Your task to perform on an android device: Search for seafood restaurants on Google Maps Image 0: 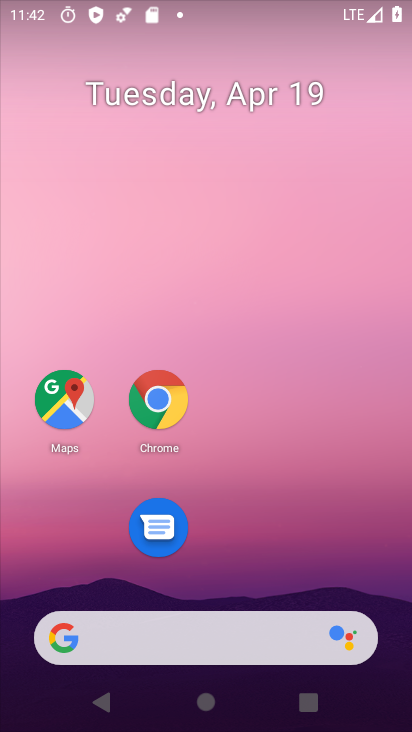
Step 0: drag from (212, 671) to (181, 200)
Your task to perform on an android device: Search for seafood restaurants on Google Maps Image 1: 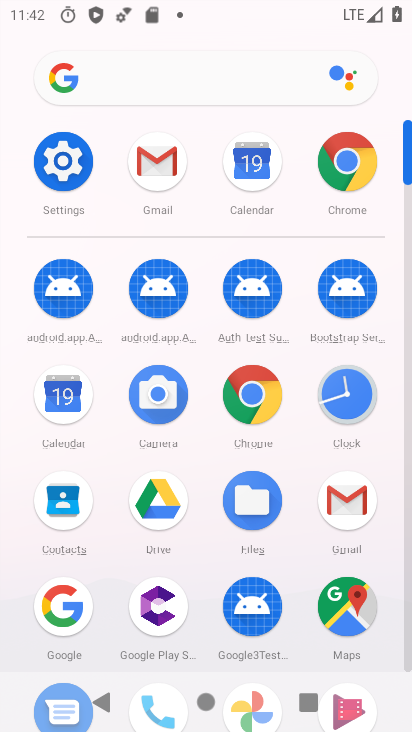
Step 1: click (338, 603)
Your task to perform on an android device: Search for seafood restaurants on Google Maps Image 2: 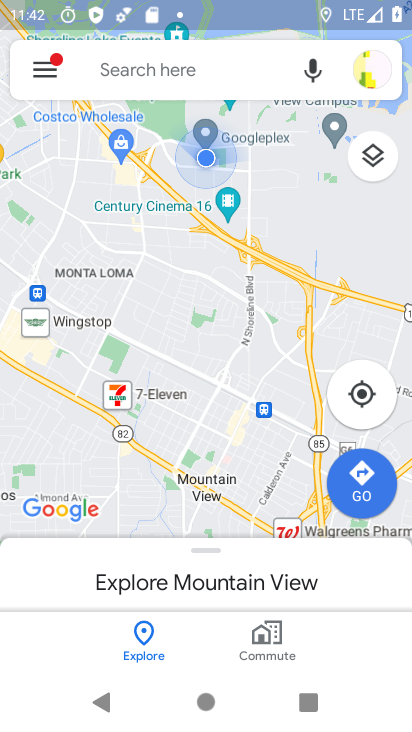
Step 2: click (148, 66)
Your task to perform on an android device: Search for seafood restaurants on Google Maps Image 3: 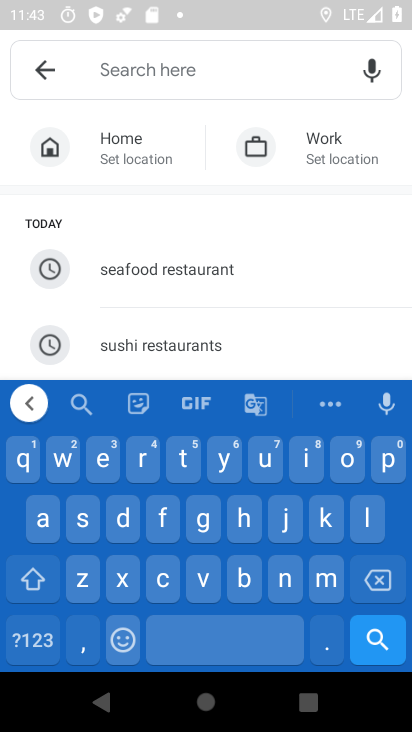
Step 3: click (103, 466)
Your task to perform on an android device: Search for seafood restaurants on Google Maps Image 4: 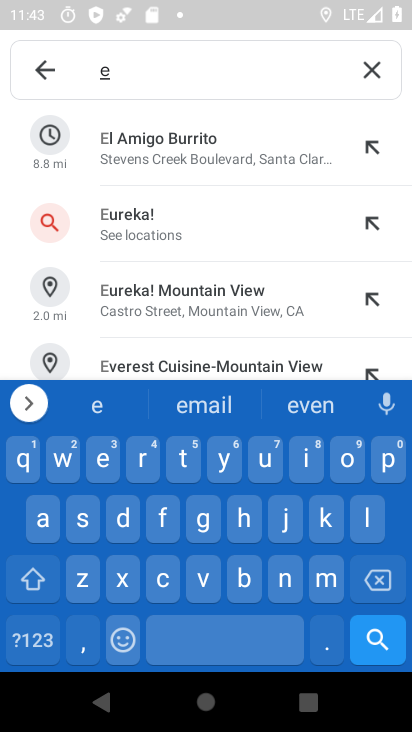
Step 4: click (81, 516)
Your task to perform on an android device: Search for seafood restaurants on Google Maps Image 5: 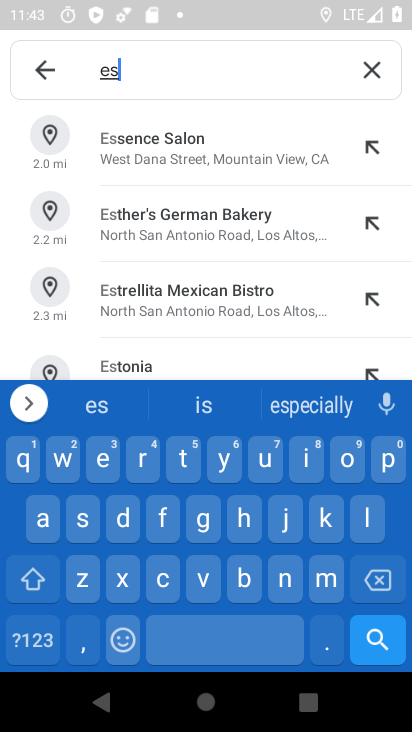
Step 5: click (372, 573)
Your task to perform on an android device: Search for seafood restaurants on Google Maps Image 6: 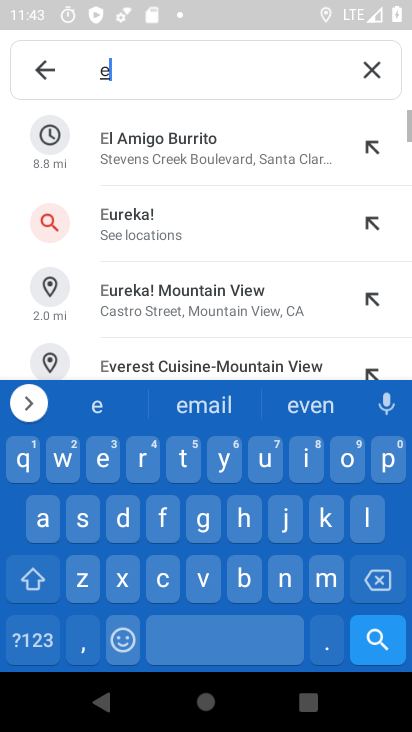
Step 6: drag from (109, 573) to (81, 521)
Your task to perform on an android device: Search for seafood restaurants on Google Maps Image 7: 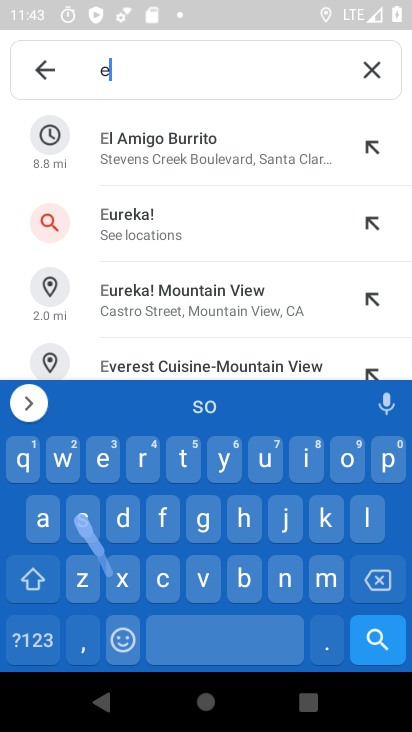
Step 7: click (81, 521)
Your task to perform on an android device: Search for seafood restaurants on Google Maps Image 8: 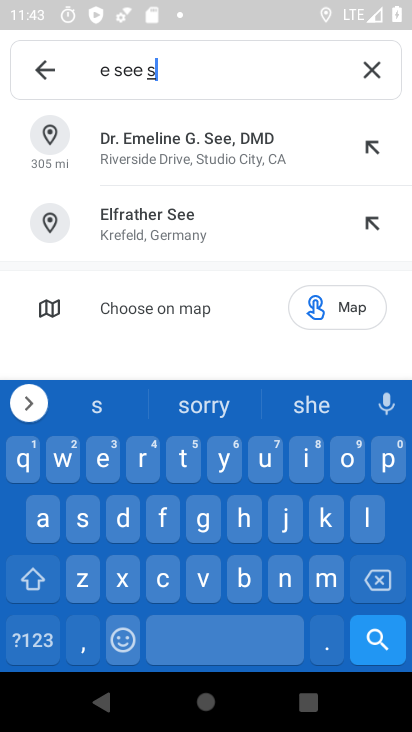
Step 8: click (370, 61)
Your task to perform on an android device: Search for seafood restaurants on Google Maps Image 9: 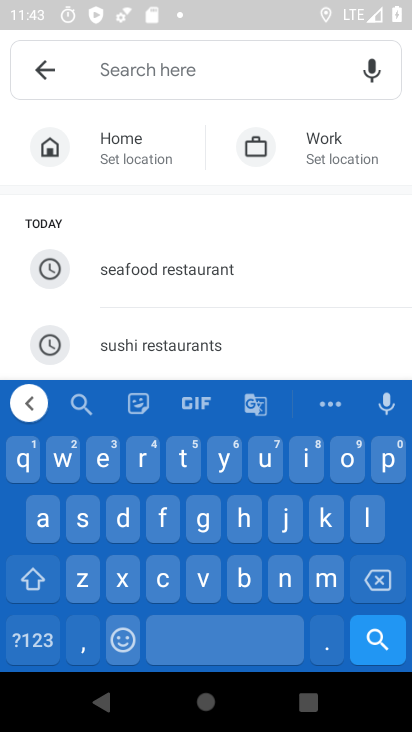
Step 9: click (77, 518)
Your task to perform on an android device: Search for seafood restaurants on Google Maps Image 10: 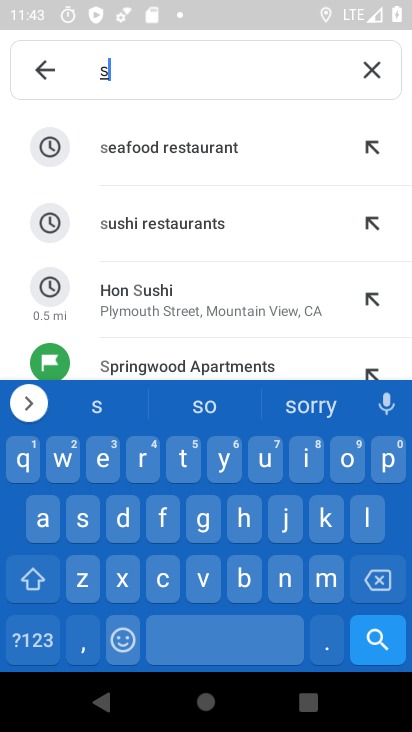
Step 10: click (213, 158)
Your task to perform on an android device: Search for seafood restaurants on Google Maps Image 11: 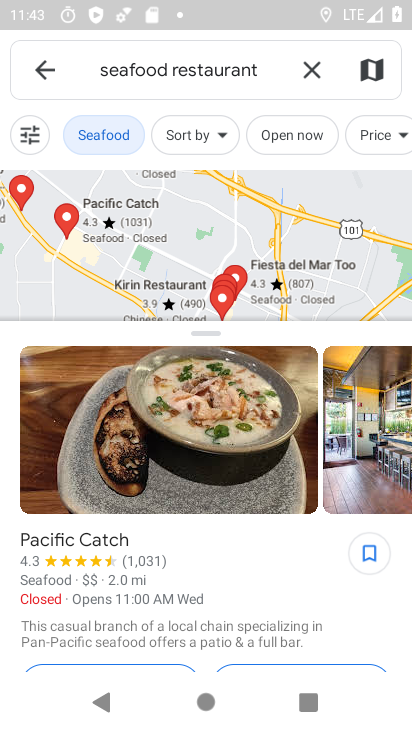
Step 11: click (202, 253)
Your task to perform on an android device: Search for seafood restaurants on Google Maps Image 12: 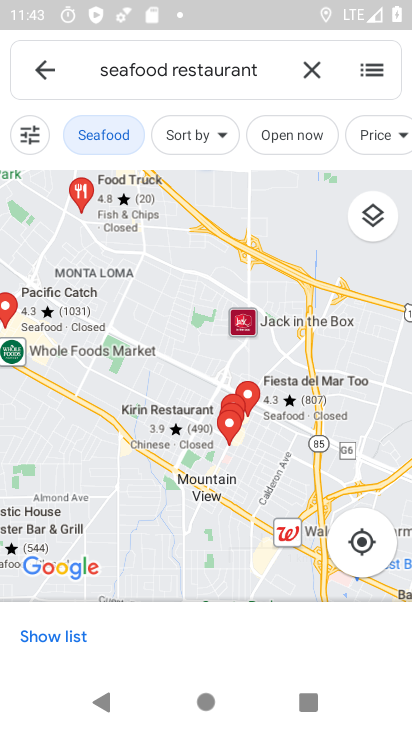
Step 12: task complete